Your task to perform on an android device: turn off notifications settings in the gmail app Image 0: 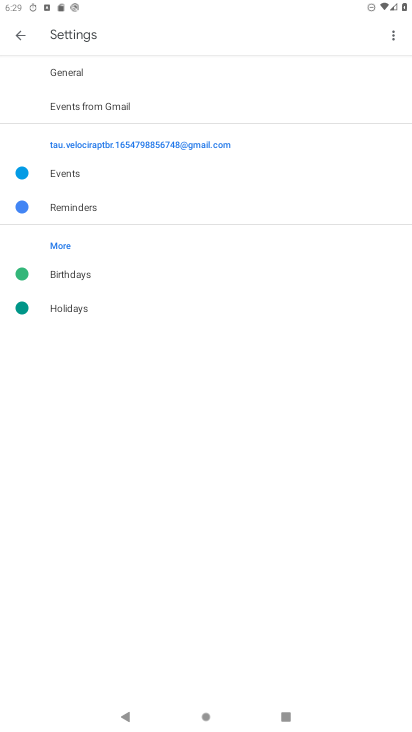
Step 0: press home button
Your task to perform on an android device: turn off notifications settings in the gmail app Image 1: 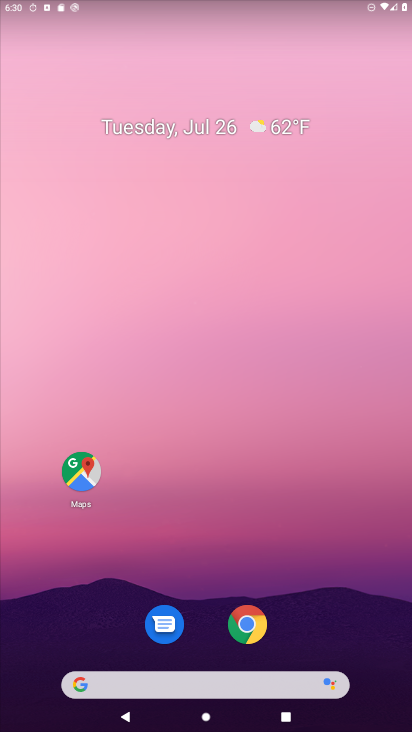
Step 1: drag from (203, 597) to (275, 116)
Your task to perform on an android device: turn off notifications settings in the gmail app Image 2: 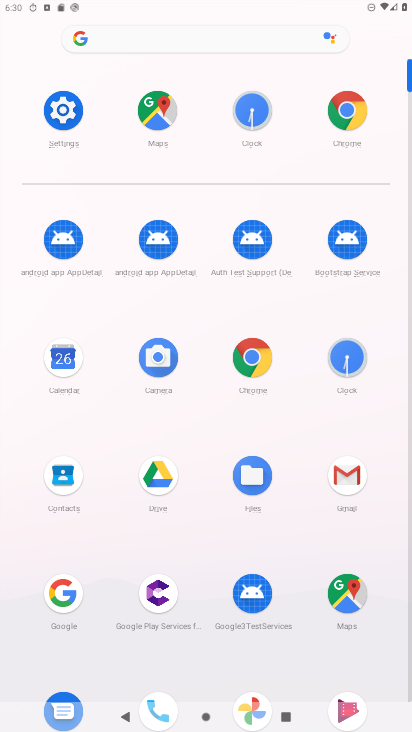
Step 2: click (334, 479)
Your task to perform on an android device: turn off notifications settings in the gmail app Image 3: 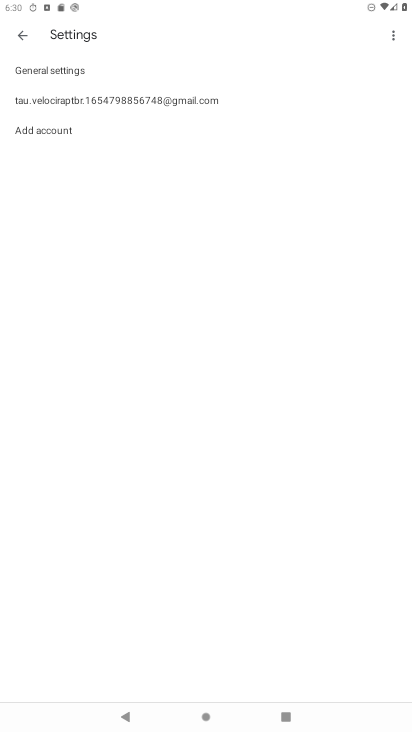
Step 3: click (171, 100)
Your task to perform on an android device: turn off notifications settings in the gmail app Image 4: 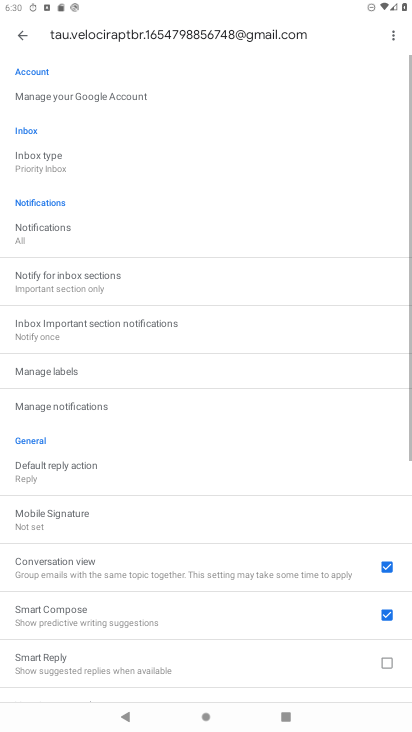
Step 4: click (65, 406)
Your task to perform on an android device: turn off notifications settings in the gmail app Image 5: 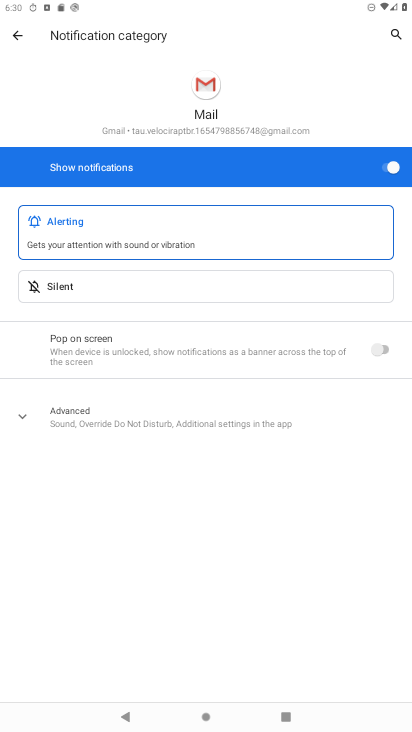
Step 5: click (383, 167)
Your task to perform on an android device: turn off notifications settings in the gmail app Image 6: 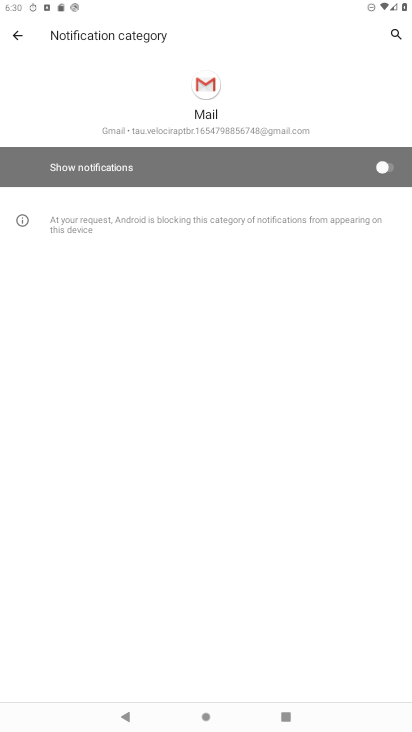
Step 6: task complete